Your task to perform on an android device: Go to ESPN.com Image 0: 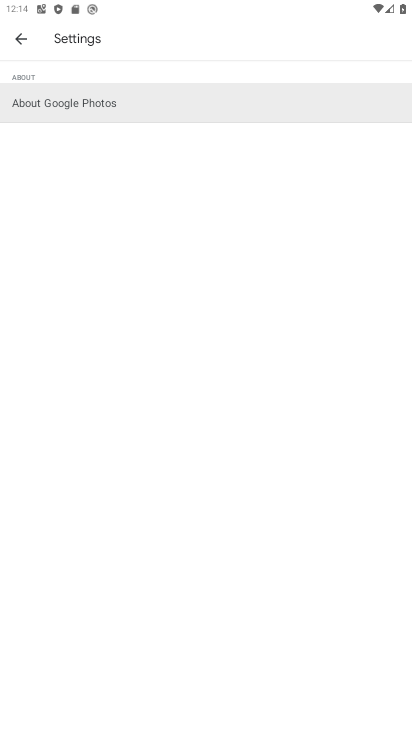
Step 0: press back button
Your task to perform on an android device: Go to ESPN.com Image 1: 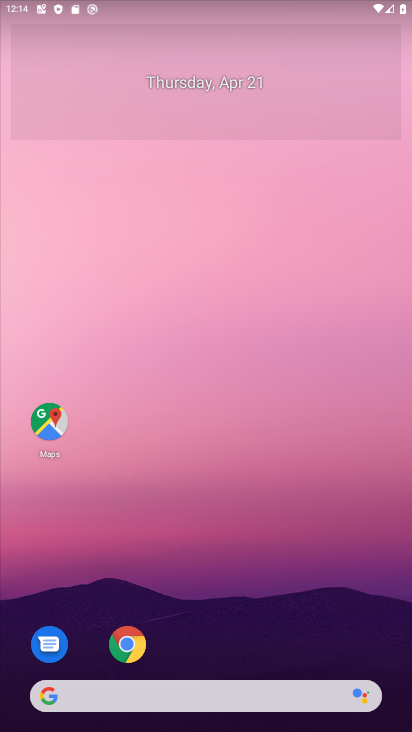
Step 1: click (128, 631)
Your task to perform on an android device: Go to ESPN.com Image 2: 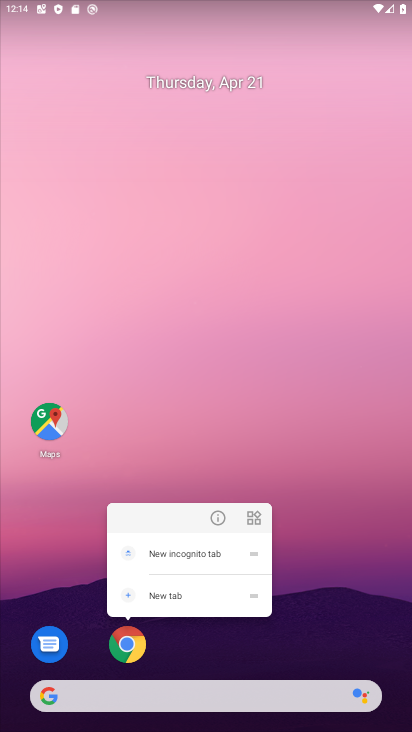
Step 2: click (124, 651)
Your task to perform on an android device: Go to ESPN.com Image 3: 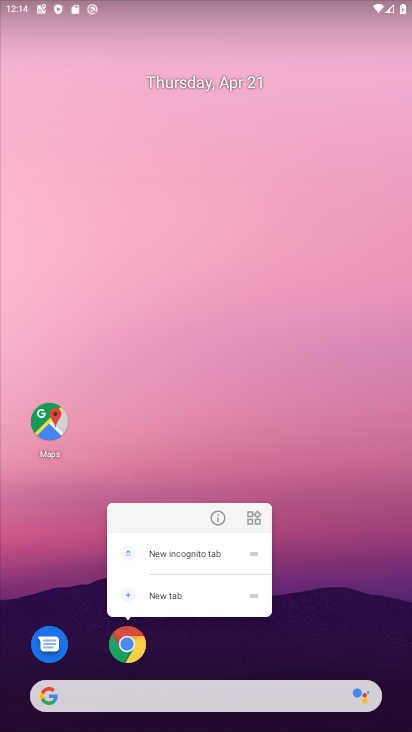
Step 3: click (133, 646)
Your task to perform on an android device: Go to ESPN.com Image 4: 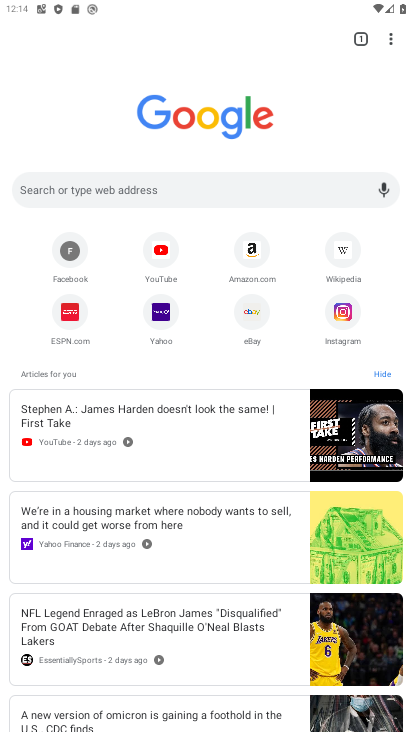
Step 4: click (71, 313)
Your task to perform on an android device: Go to ESPN.com Image 5: 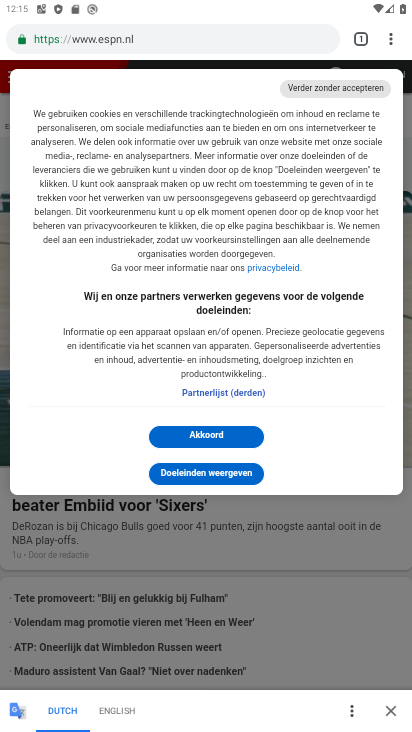
Step 5: task complete